Your task to perform on an android device: What's the weather going to be this weekend? Image 0: 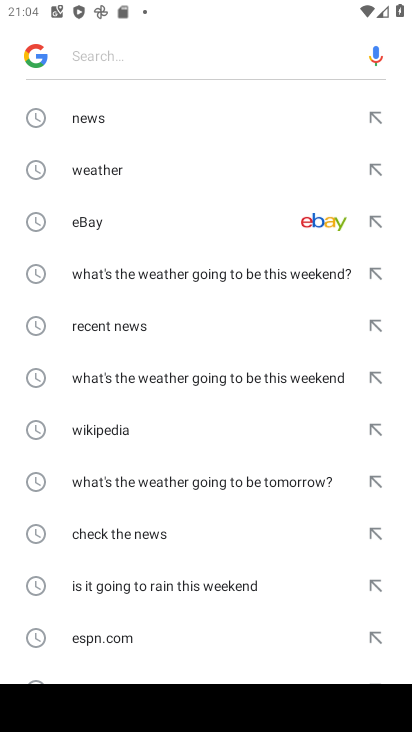
Step 0: press home button
Your task to perform on an android device: What's the weather going to be this weekend? Image 1: 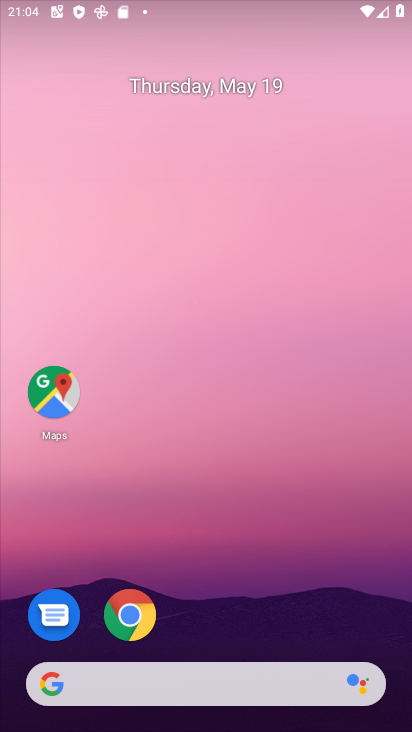
Step 1: drag from (243, 574) to (279, 1)
Your task to perform on an android device: What's the weather going to be this weekend? Image 2: 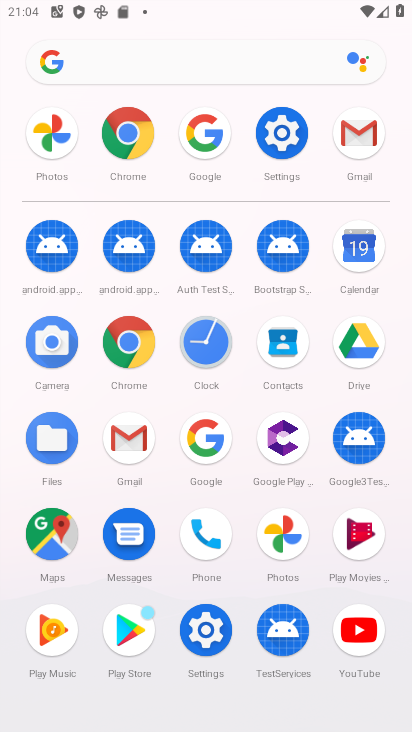
Step 2: click (210, 440)
Your task to perform on an android device: What's the weather going to be this weekend? Image 3: 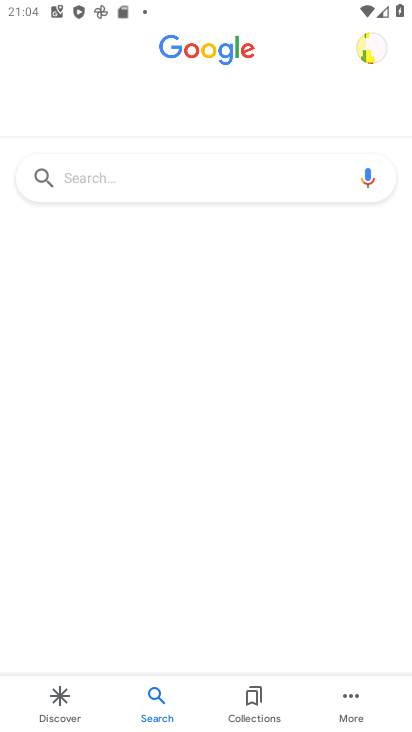
Step 3: click (158, 187)
Your task to perform on an android device: What's the weather going to be this weekend? Image 4: 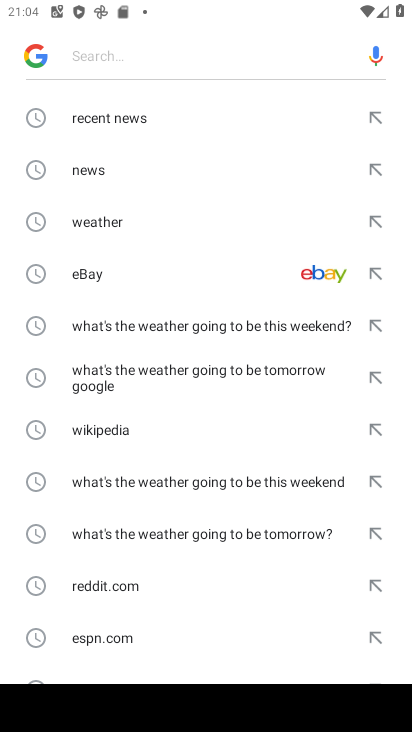
Step 4: click (187, 329)
Your task to perform on an android device: What's the weather going to be this weekend? Image 5: 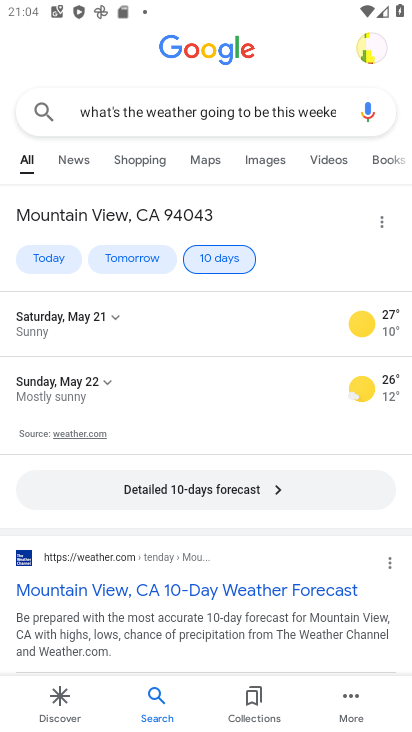
Step 5: task complete